Your task to perform on an android device: delete location history Image 0: 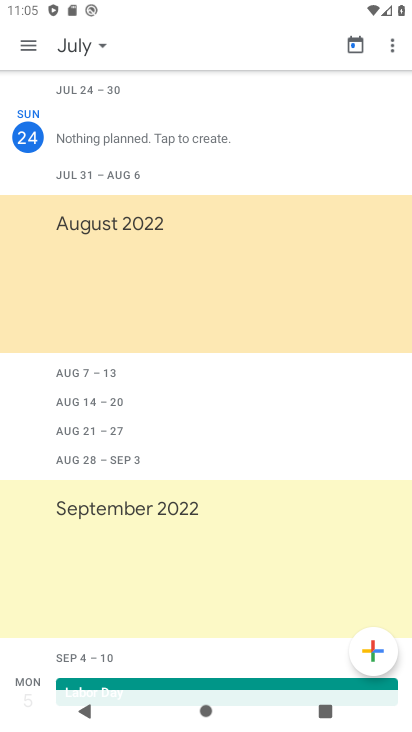
Step 0: press home button
Your task to perform on an android device: delete location history Image 1: 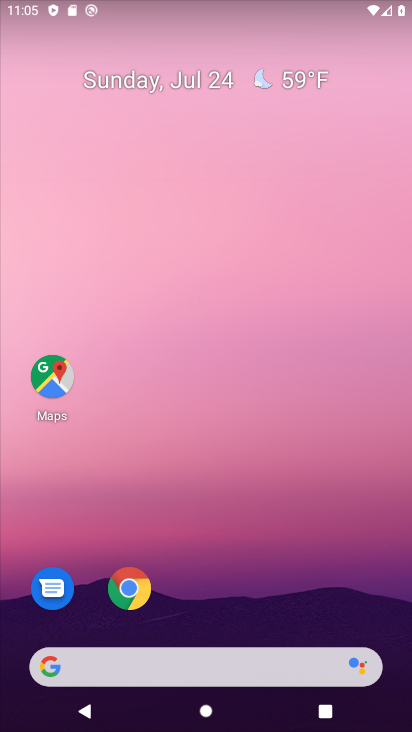
Step 1: drag from (337, 587) to (165, 19)
Your task to perform on an android device: delete location history Image 2: 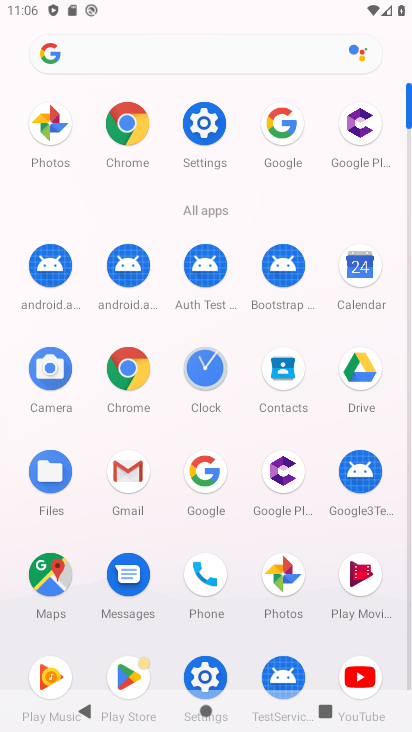
Step 2: click (211, 679)
Your task to perform on an android device: delete location history Image 3: 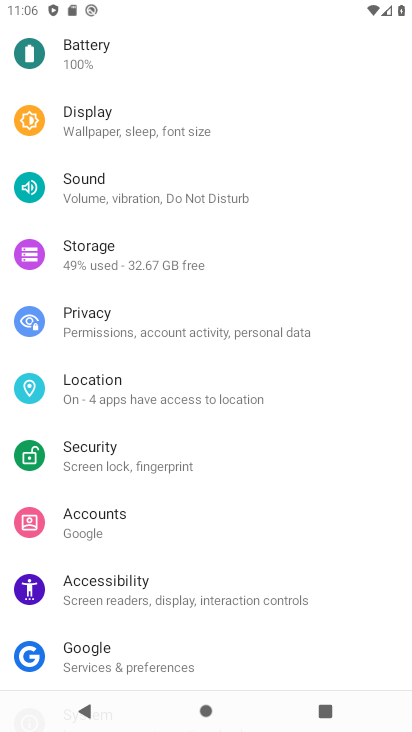
Step 3: click (115, 398)
Your task to perform on an android device: delete location history Image 4: 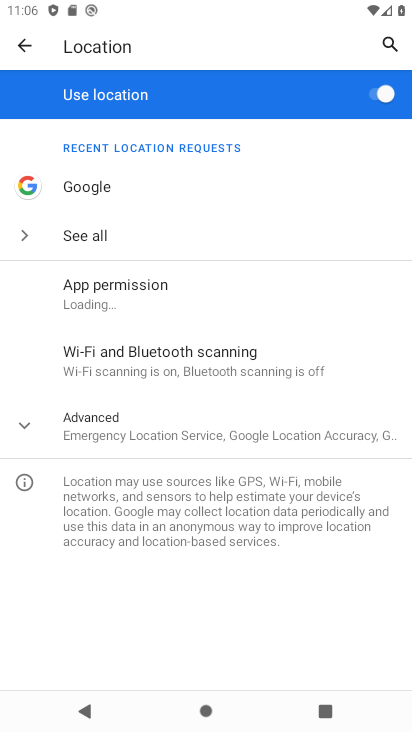
Step 4: click (90, 421)
Your task to perform on an android device: delete location history Image 5: 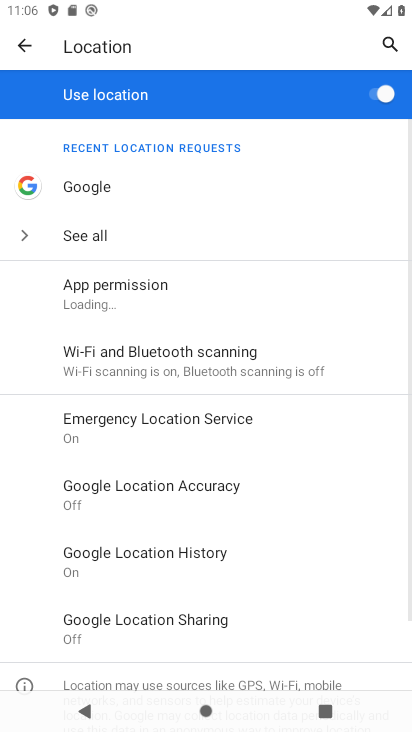
Step 5: click (199, 556)
Your task to perform on an android device: delete location history Image 6: 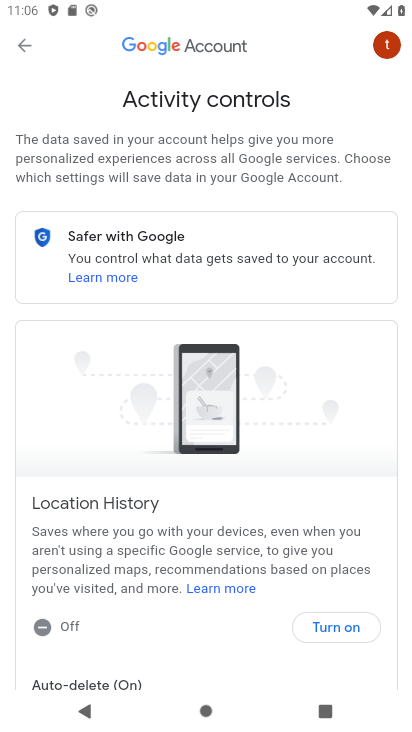
Step 6: drag from (176, 646) to (92, 141)
Your task to perform on an android device: delete location history Image 7: 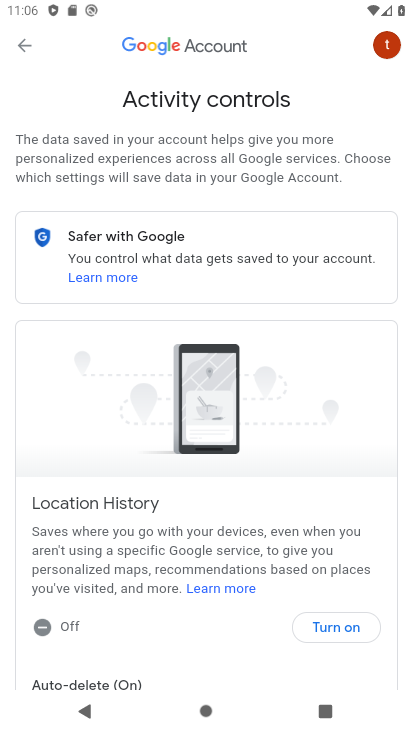
Step 7: drag from (124, 674) to (109, 98)
Your task to perform on an android device: delete location history Image 8: 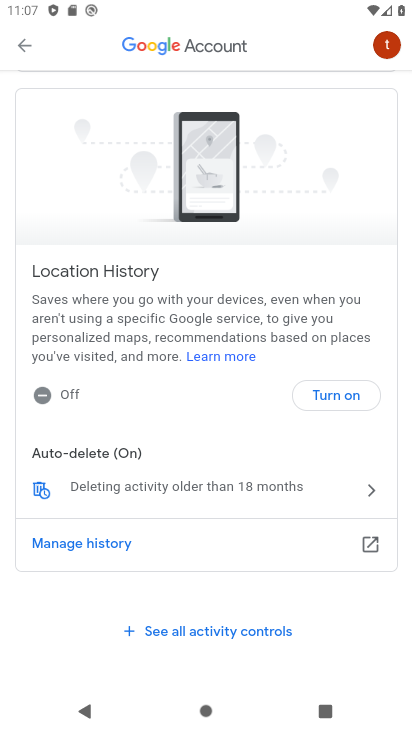
Step 8: click (146, 492)
Your task to perform on an android device: delete location history Image 9: 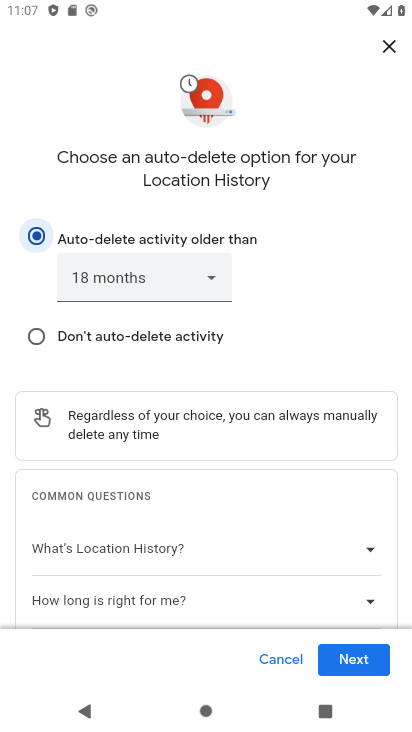
Step 9: click (348, 658)
Your task to perform on an android device: delete location history Image 10: 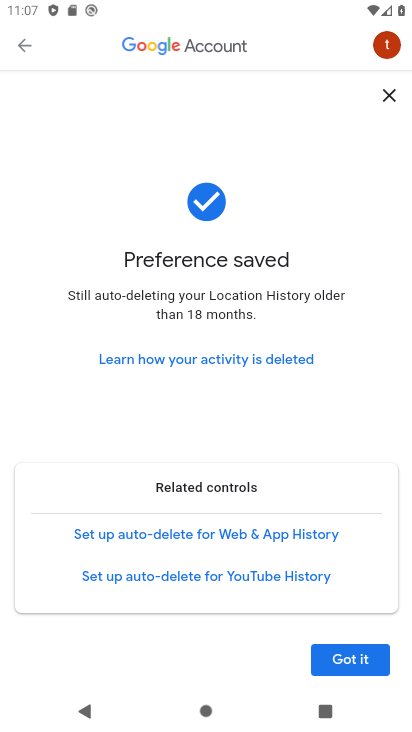
Step 10: task complete